Your task to perform on an android device: toggle location history Image 0: 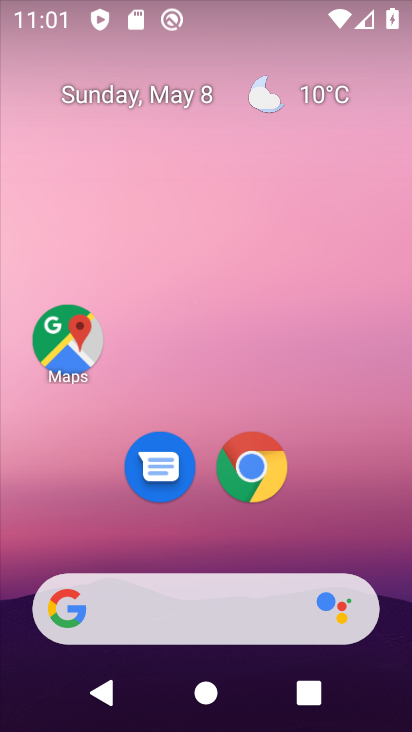
Step 0: drag from (389, 565) to (265, 73)
Your task to perform on an android device: toggle location history Image 1: 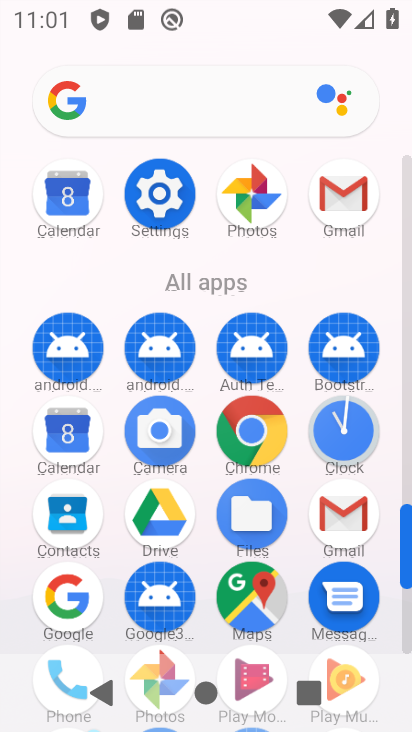
Step 1: click (263, 590)
Your task to perform on an android device: toggle location history Image 2: 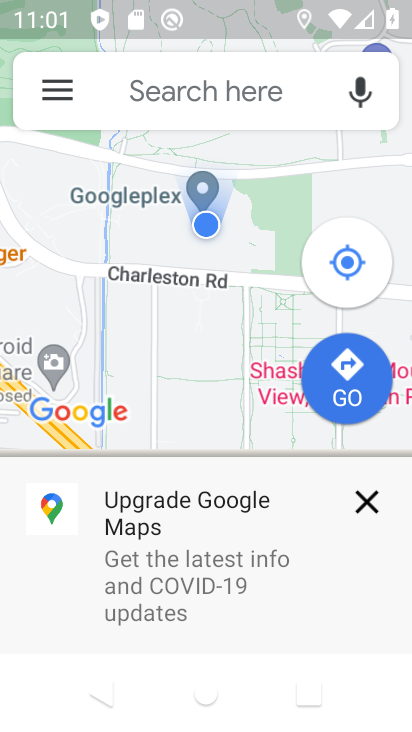
Step 2: click (53, 96)
Your task to perform on an android device: toggle location history Image 3: 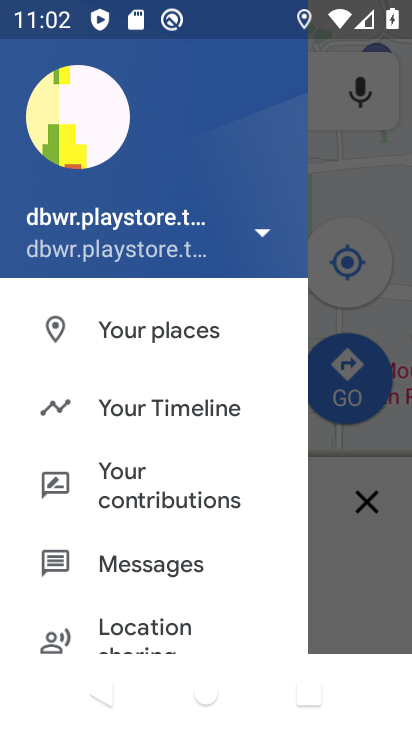
Step 3: click (157, 411)
Your task to perform on an android device: toggle location history Image 4: 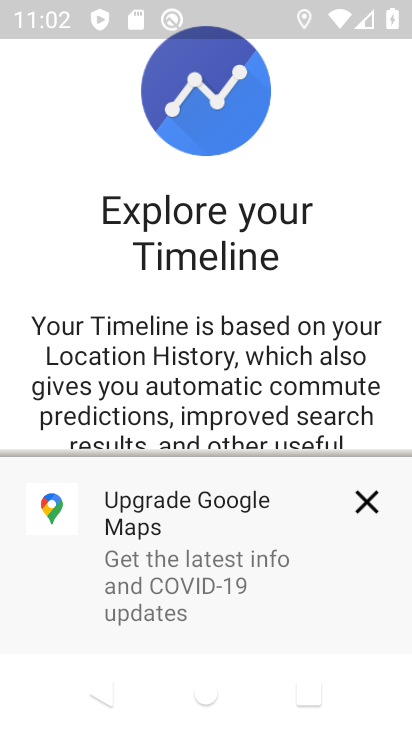
Step 4: click (366, 492)
Your task to perform on an android device: toggle location history Image 5: 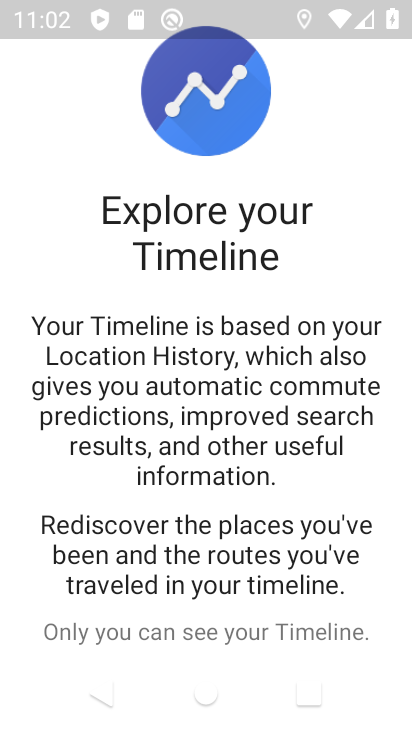
Step 5: drag from (317, 634) to (246, 52)
Your task to perform on an android device: toggle location history Image 6: 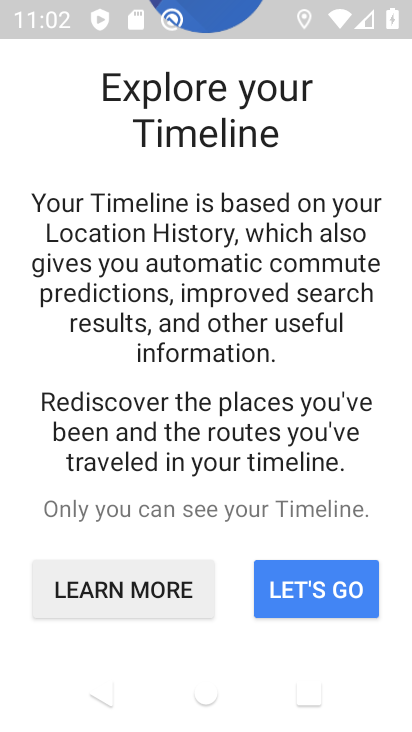
Step 6: click (298, 599)
Your task to perform on an android device: toggle location history Image 7: 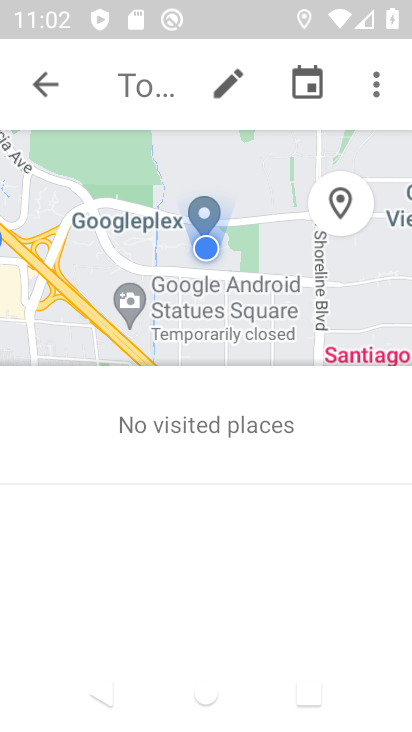
Step 7: click (379, 95)
Your task to perform on an android device: toggle location history Image 8: 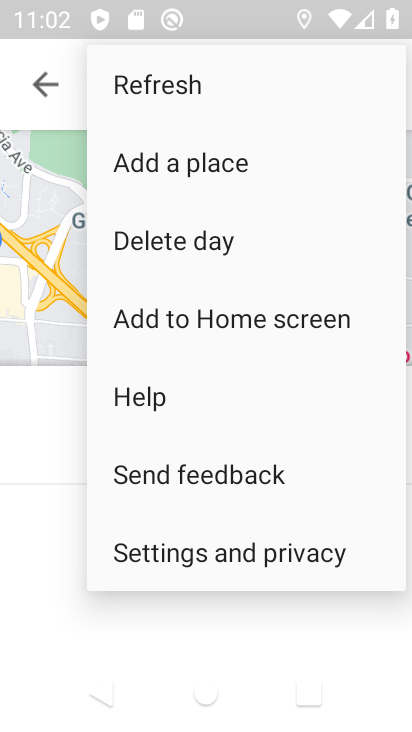
Step 8: click (279, 572)
Your task to perform on an android device: toggle location history Image 9: 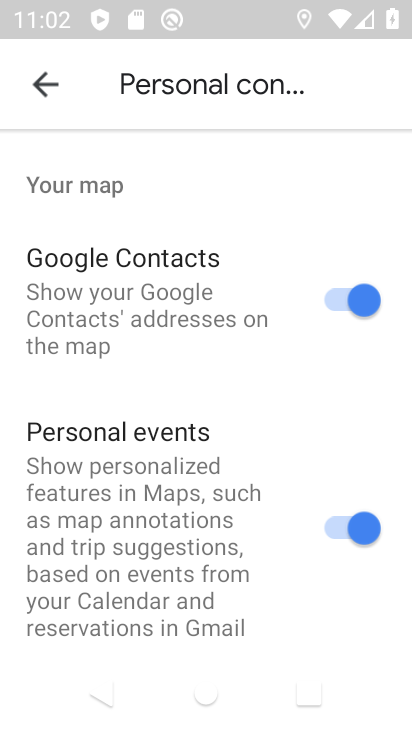
Step 9: drag from (247, 623) to (236, 194)
Your task to perform on an android device: toggle location history Image 10: 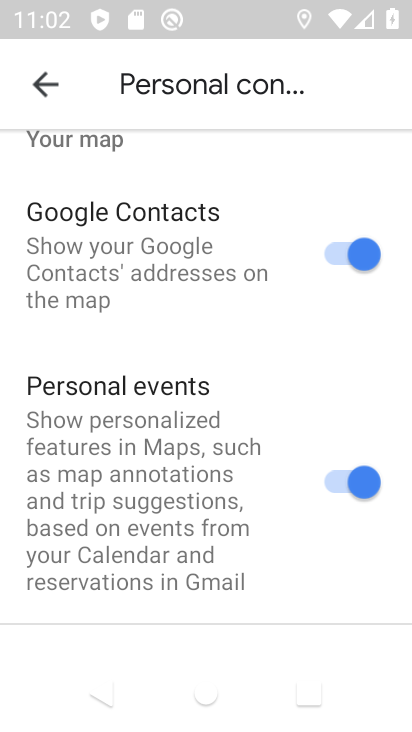
Step 10: drag from (137, 482) to (167, 99)
Your task to perform on an android device: toggle location history Image 11: 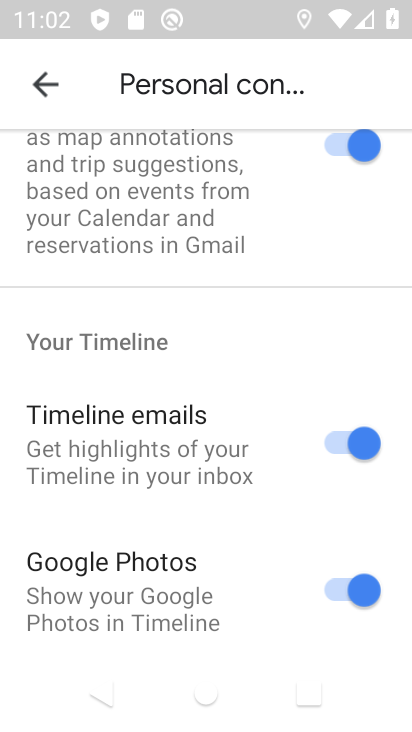
Step 11: drag from (105, 334) to (145, 43)
Your task to perform on an android device: toggle location history Image 12: 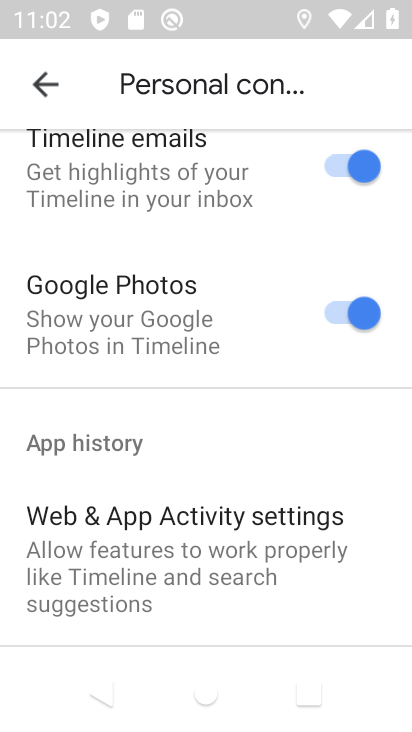
Step 12: drag from (95, 472) to (159, 176)
Your task to perform on an android device: toggle location history Image 13: 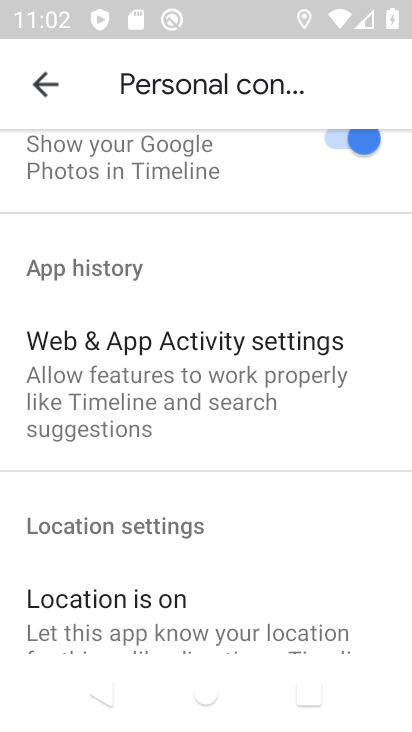
Step 13: drag from (99, 519) to (220, 151)
Your task to perform on an android device: toggle location history Image 14: 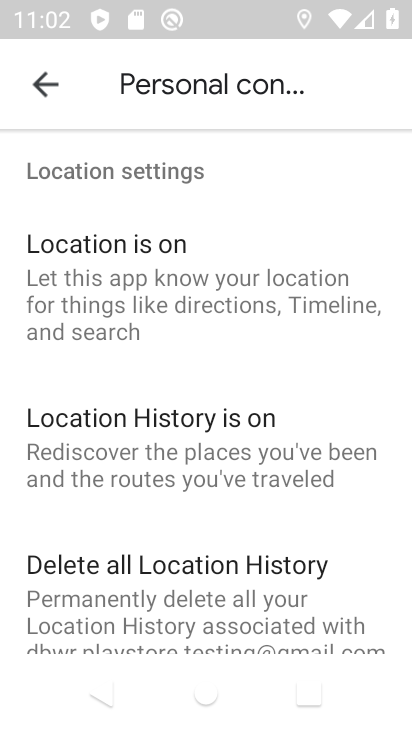
Step 14: click (160, 468)
Your task to perform on an android device: toggle location history Image 15: 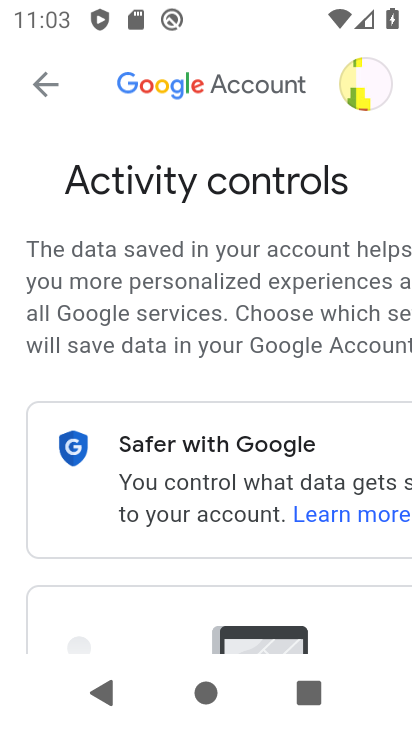
Step 15: drag from (170, 635) to (127, 125)
Your task to perform on an android device: toggle location history Image 16: 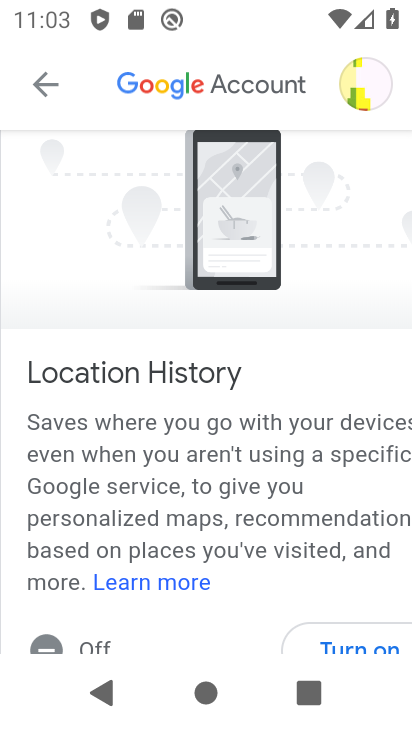
Step 16: drag from (117, 502) to (151, 230)
Your task to perform on an android device: toggle location history Image 17: 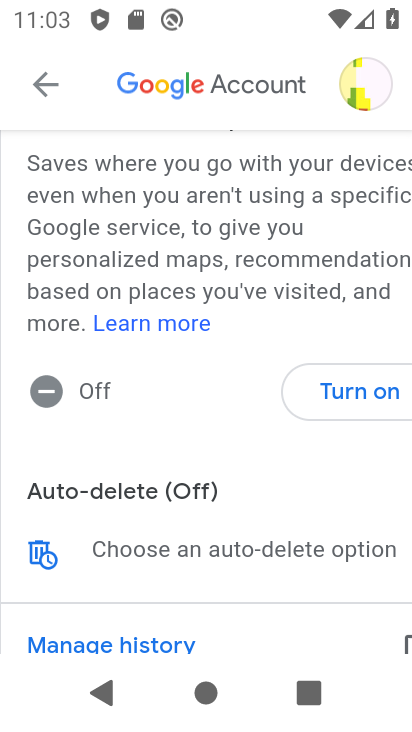
Step 17: click (357, 396)
Your task to perform on an android device: toggle location history Image 18: 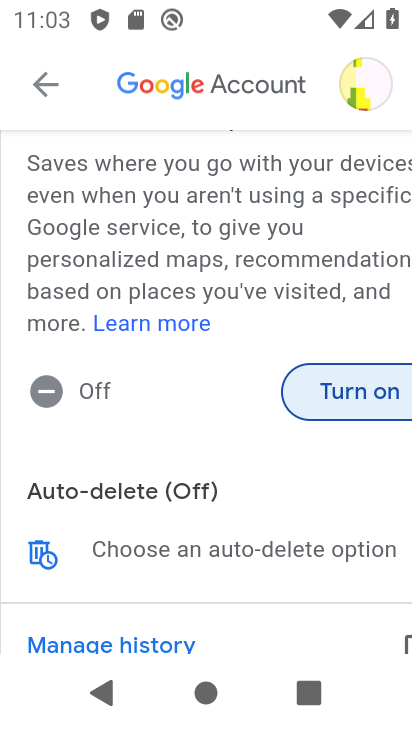
Step 18: click (334, 399)
Your task to perform on an android device: toggle location history Image 19: 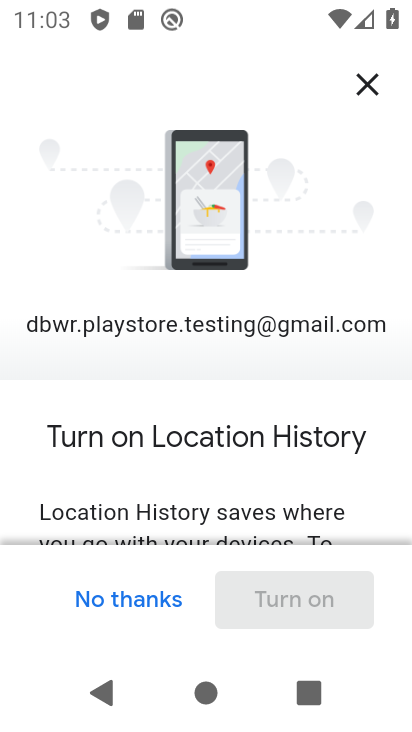
Step 19: drag from (232, 481) to (262, 126)
Your task to perform on an android device: toggle location history Image 20: 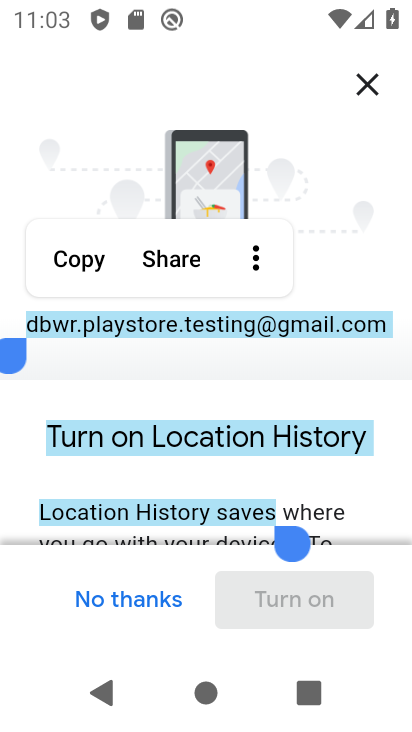
Step 20: click (122, 475)
Your task to perform on an android device: toggle location history Image 21: 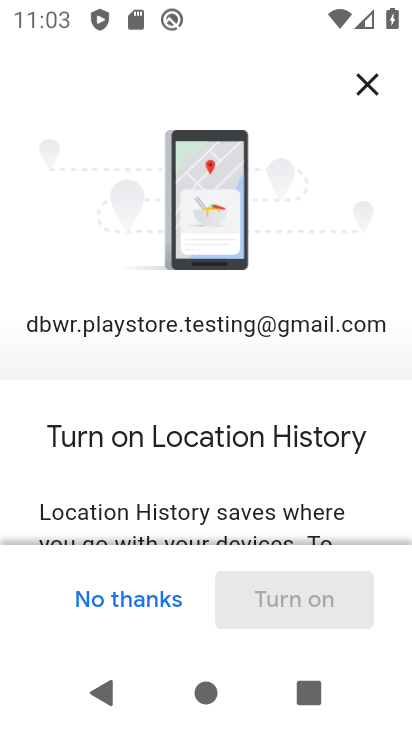
Step 21: drag from (232, 525) to (189, 72)
Your task to perform on an android device: toggle location history Image 22: 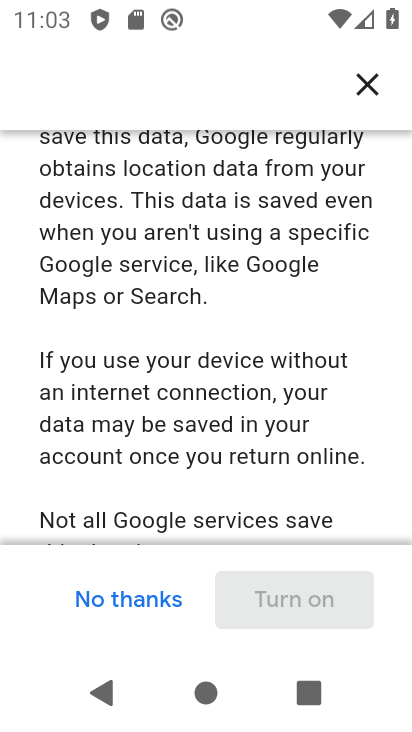
Step 22: drag from (262, 487) to (221, 116)
Your task to perform on an android device: toggle location history Image 23: 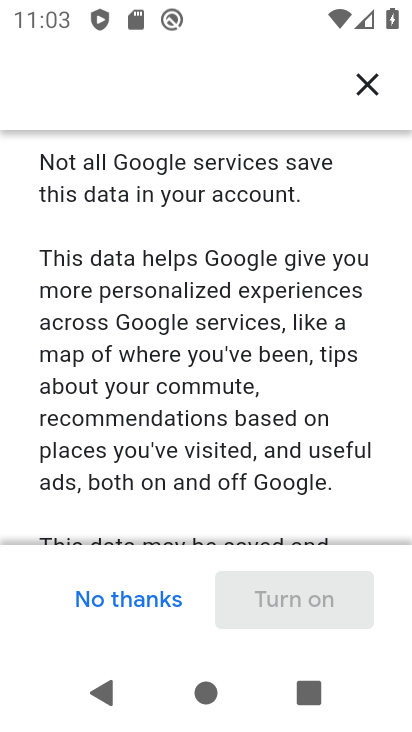
Step 23: drag from (276, 515) to (240, 144)
Your task to perform on an android device: toggle location history Image 24: 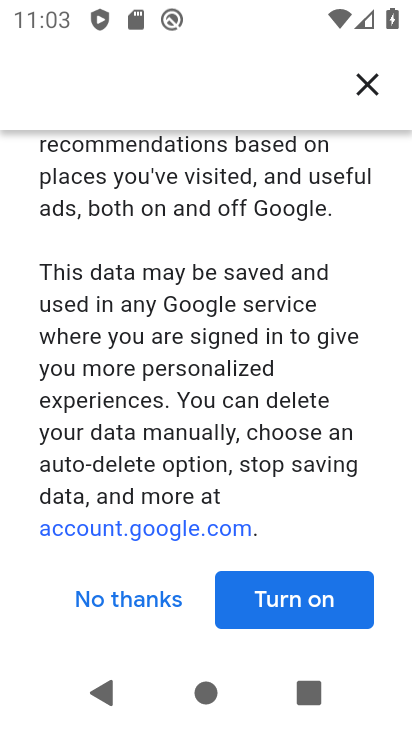
Step 24: click (308, 583)
Your task to perform on an android device: toggle location history Image 25: 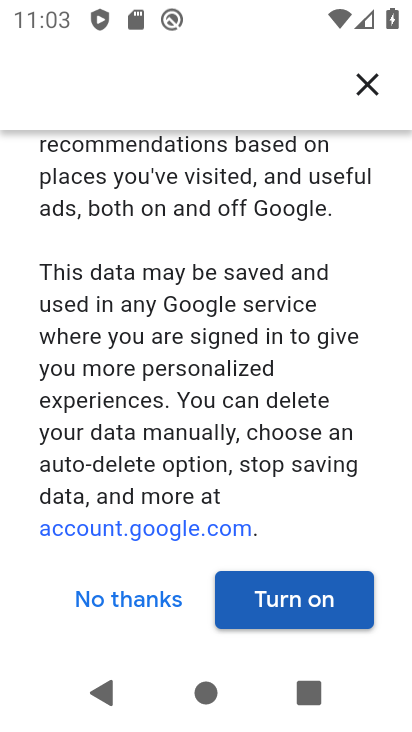
Step 25: click (308, 603)
Your task to perform on an android device: toggle location history Image 26: 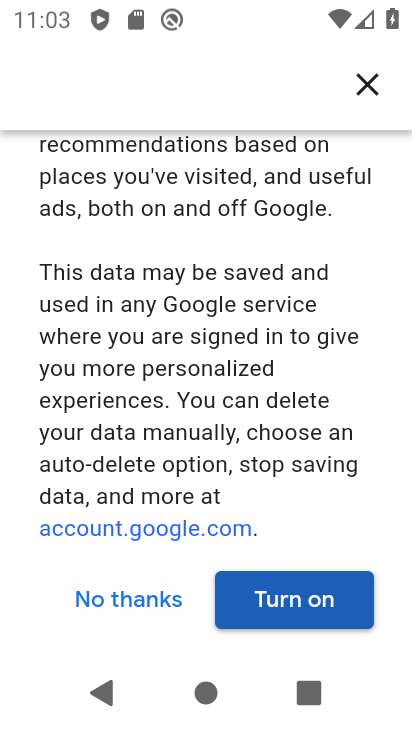
Step 26: click (308, 603)
Your task to perform on an android device: toggle location history Image 27: 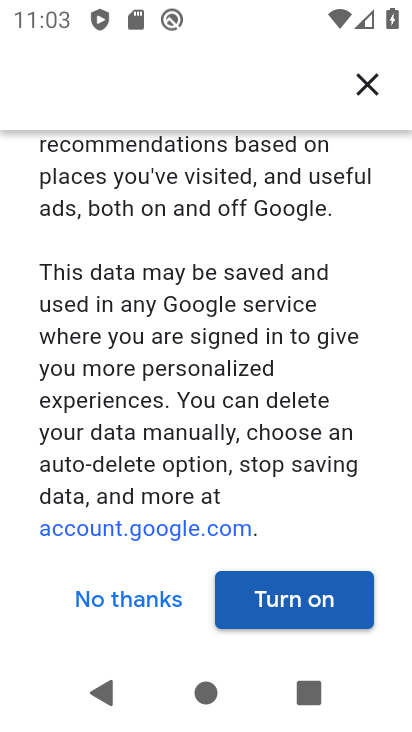
Step 27: click (291, 613)
Your task to perform on an android device: toggle location history Image 28: 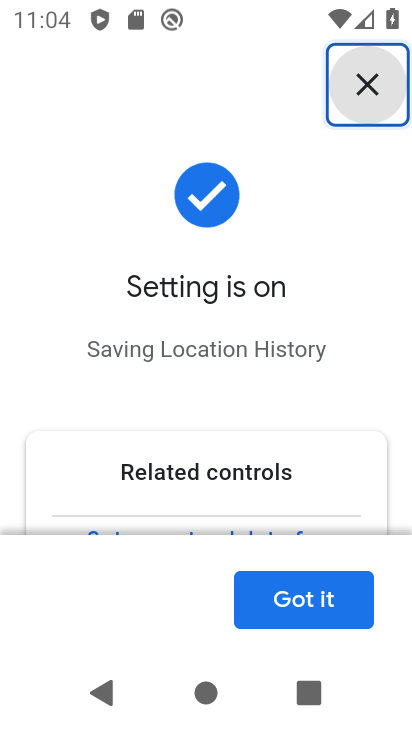
Step 28: click (291, 613)
Your task to perform on an android device: toggle location history Image 29: 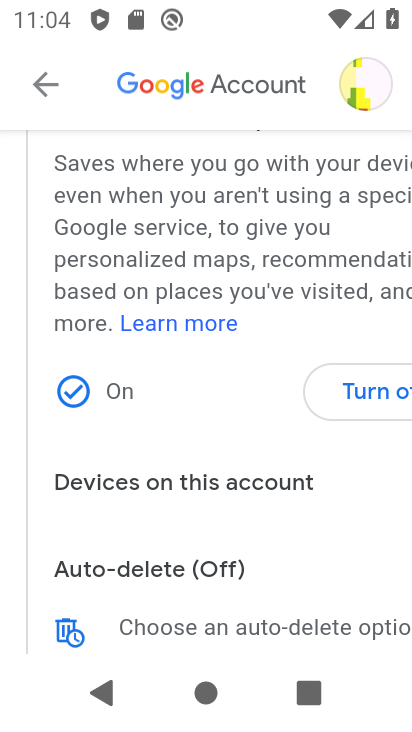
Step 29: task complete